Your task to perform on an android device: Show me popular games on the Play Store Image 0: 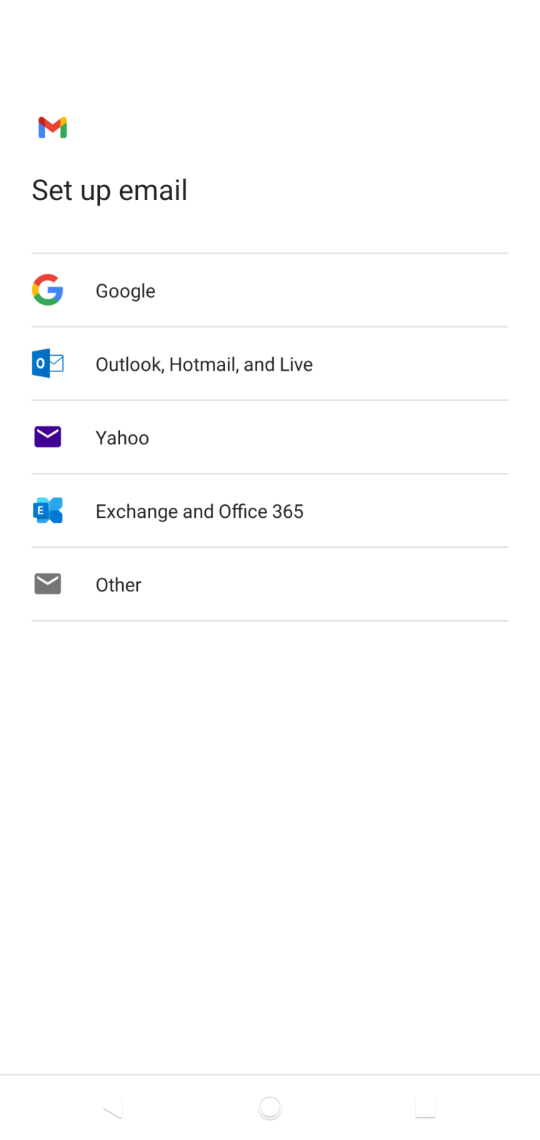
Step 0: drag from (217, 929) to (275, 334)
Your task to perform on an android device: Show me popular games on the Play Store Image 1: 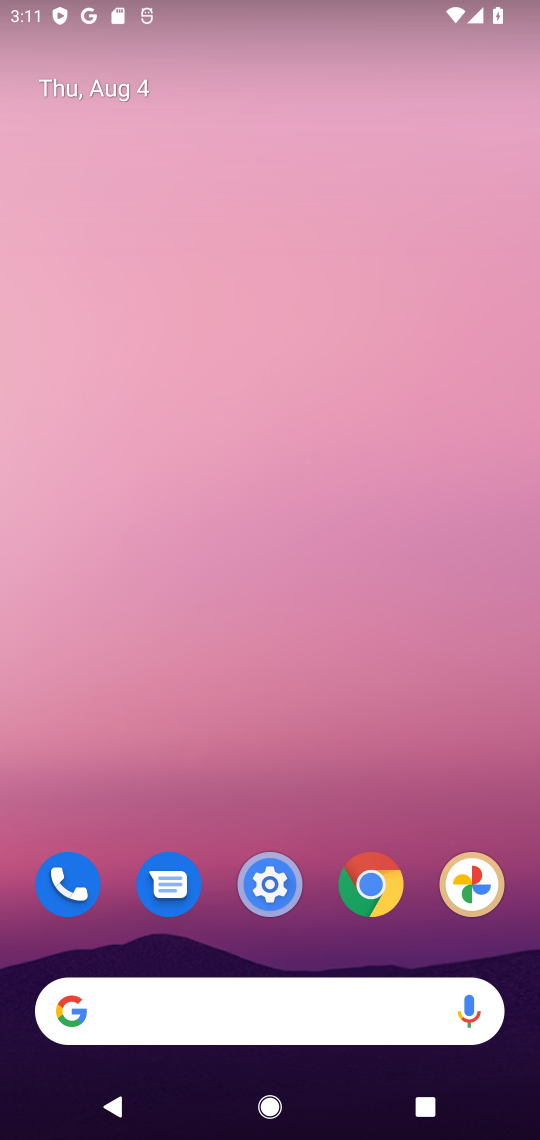
Step 1: drag from (226, 930) to (316, 302)
Your task to perform on an android device: Show me popular games on the Play Store Image 2: 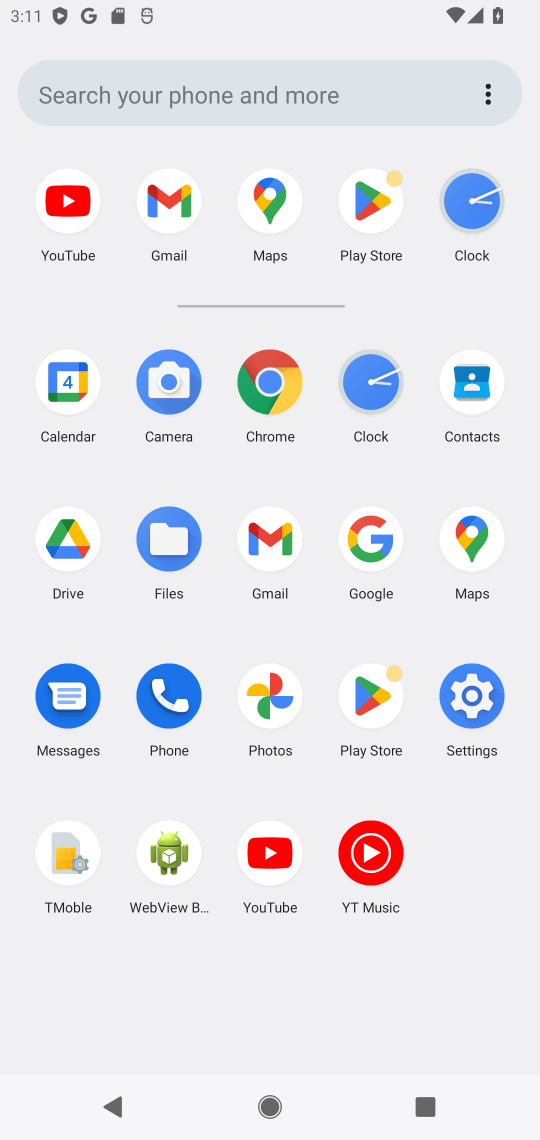
Step 2: click (363, 682)
Your task to perform on an android device: Show me popular games on the Play Store Image 3: 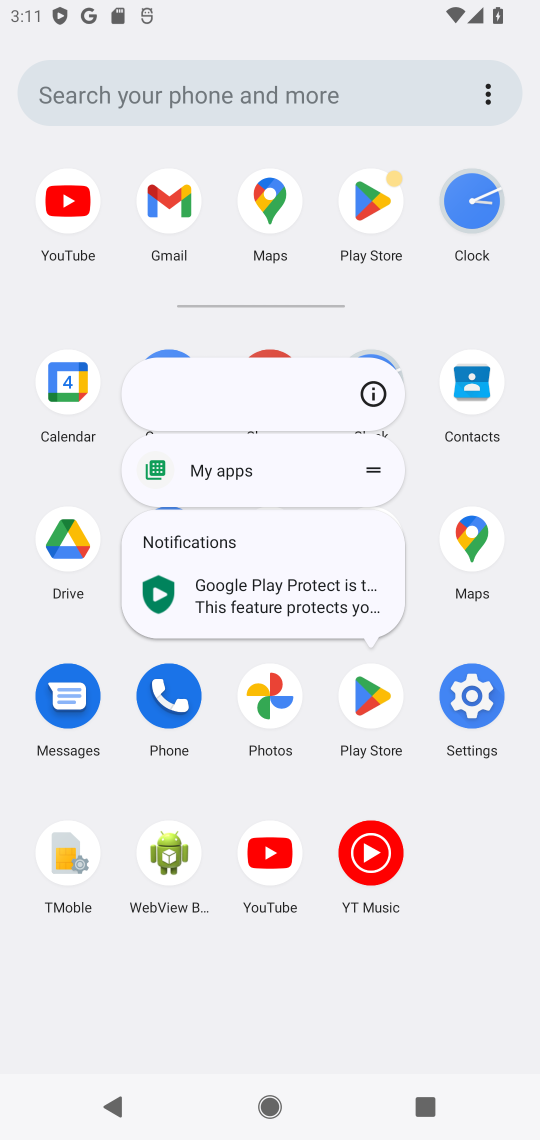
Step 3: click (378, 395)
Your task to perform on an android device: Show me popular games on the Play Store Image 4: 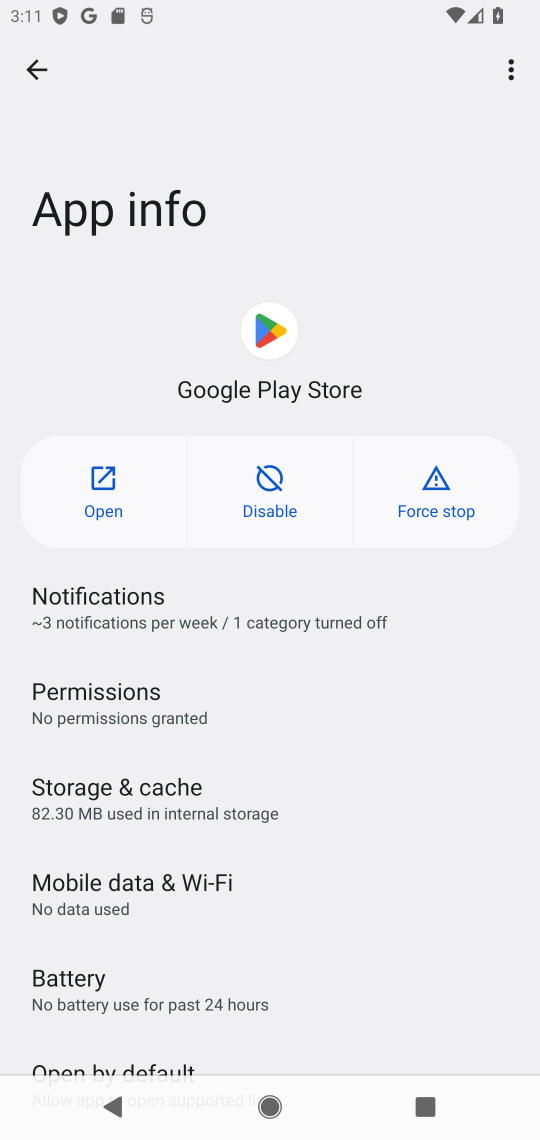
Step 4: click (110, 471)
Your task to perform on an android device: Show me popular games on the Play Store Image 5: 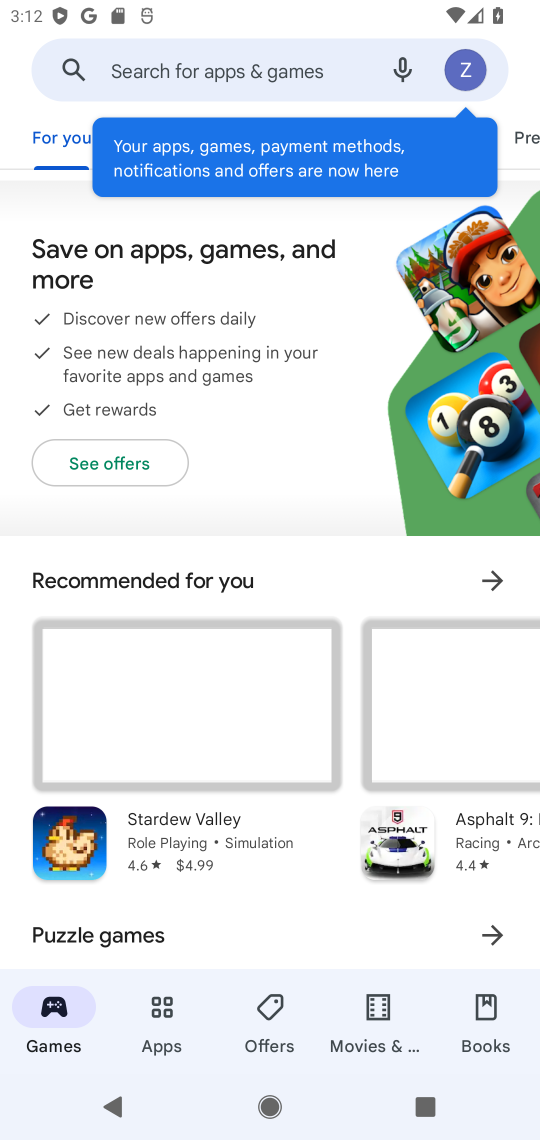
Step 5: drag from (250, 376) to (275, 1049)
Your task to perform on an android device: Show me popular games on the Play Store Image 6: 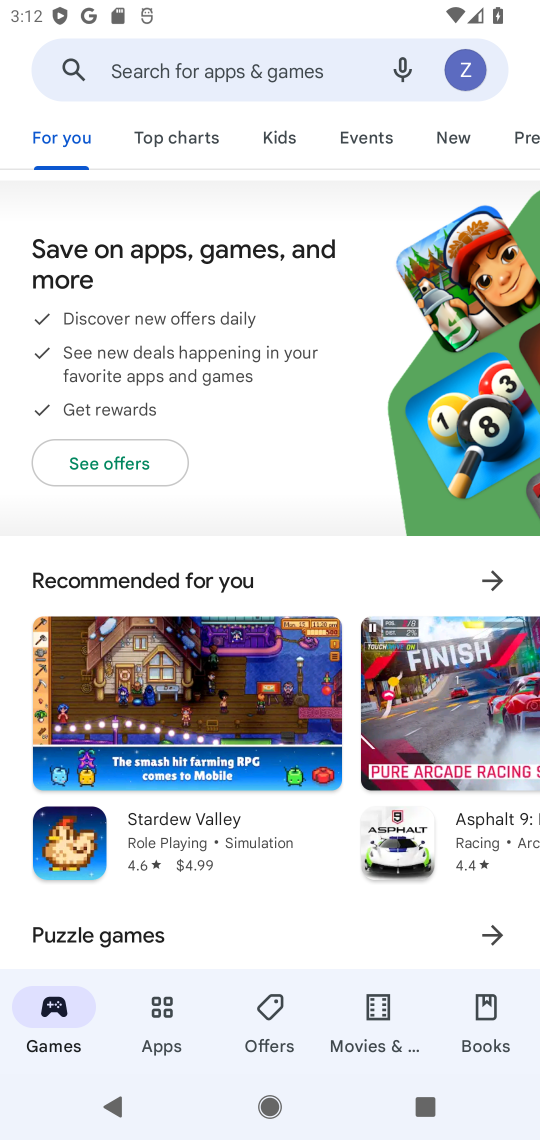
Step 6: drag from (241, 720) to (299, 291)
Your task to perform on an android device: Show me popular games on the Play Store Image 7: 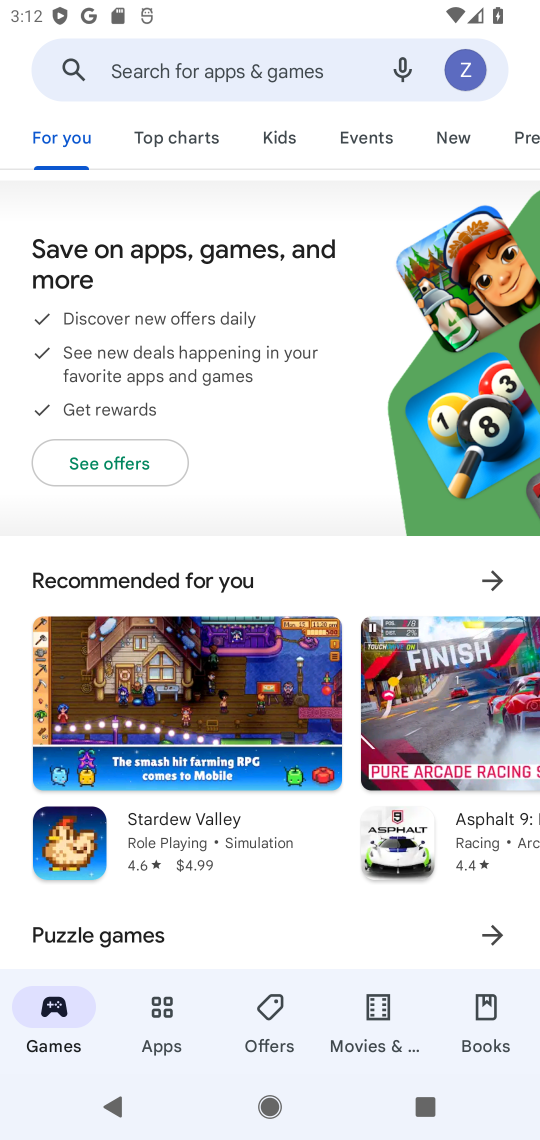
Step 7: drag from (257, 910) to (330, 509)
Your task to perform on an android device: Show me popular games on the Play Store Image 8: 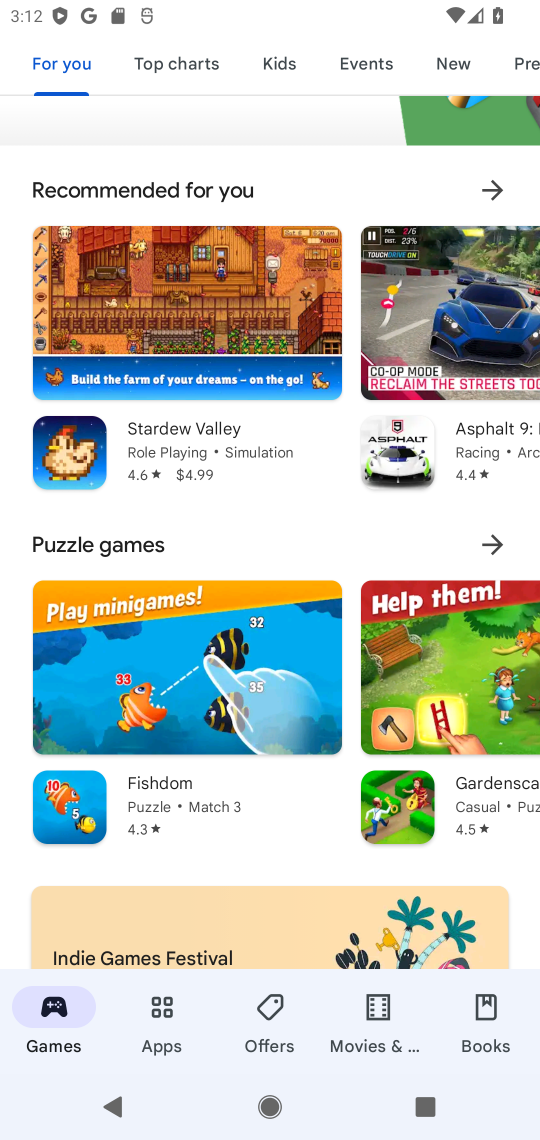
Step 8: drag from (327, 260) to (334, 1137)
Your task to perform on an android device: Show me popular games on the Play Store Image 9: 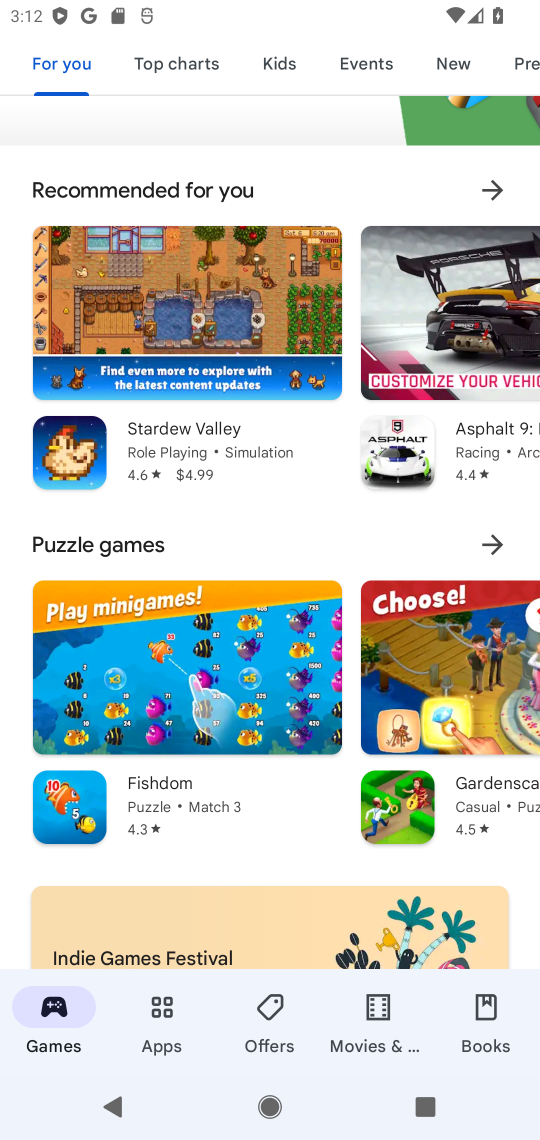
Step 9: drag from (274, 172) to (292, 1107)
Your task to perform on an android device: Show me popular games on the Play Store Image 10: 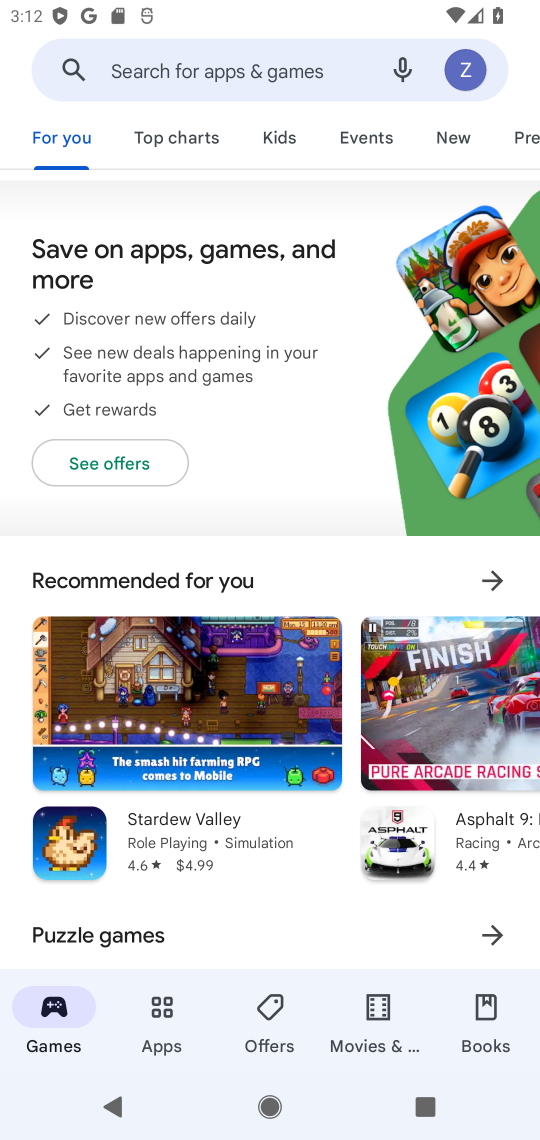
Step 10: drag from (260, 590) to (258, 1102)
Your task to perform on an android device: Show me popular games on the Play Store Image 11: 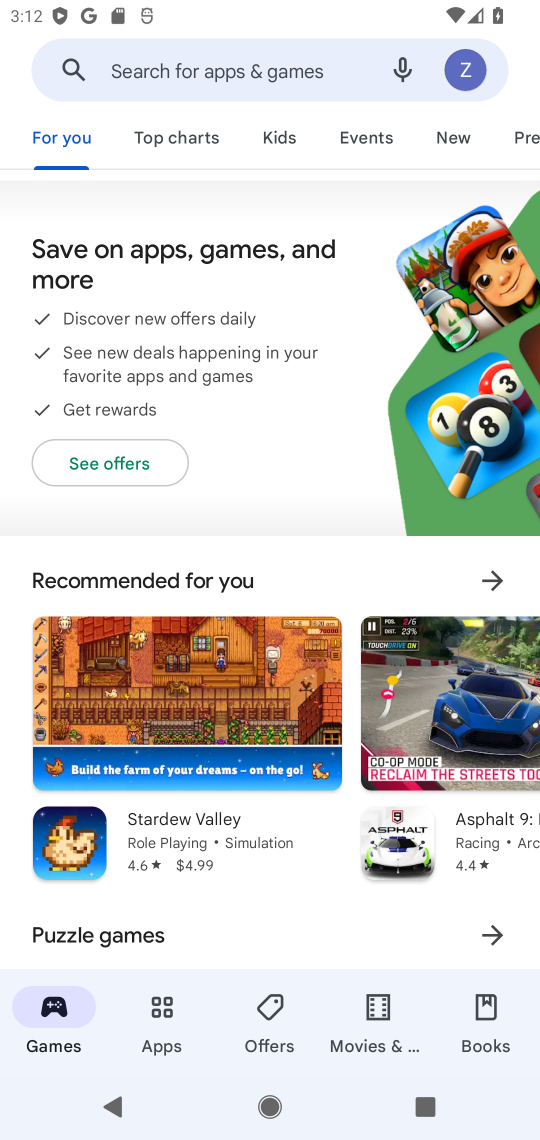
Step 11: click (354, 525)
Your task to perform on an android device: Show me popular games on the Play Store Image 12: 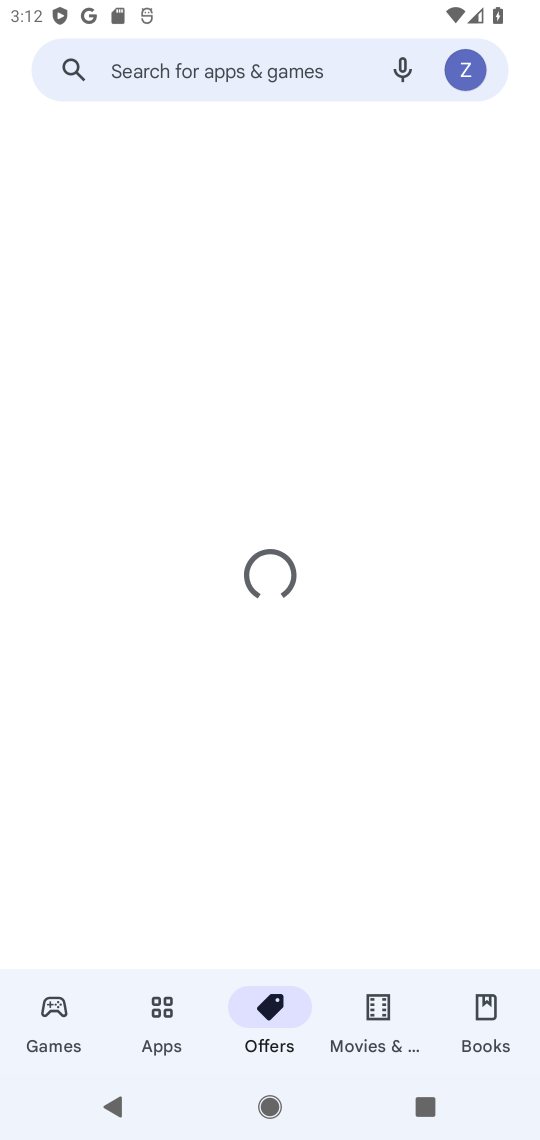
Step 12: click (79, 1007)
Your task to perform on an android device: Show me popular games on the Play Store Image 13: 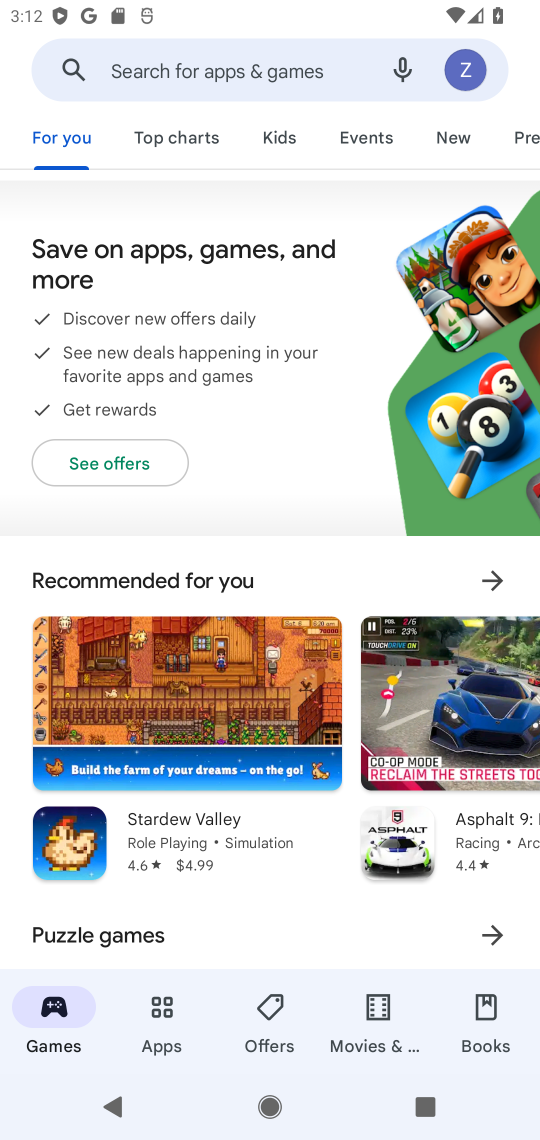
Step 13: task complete